Your task to perform on an android device: Open the map Image 0: 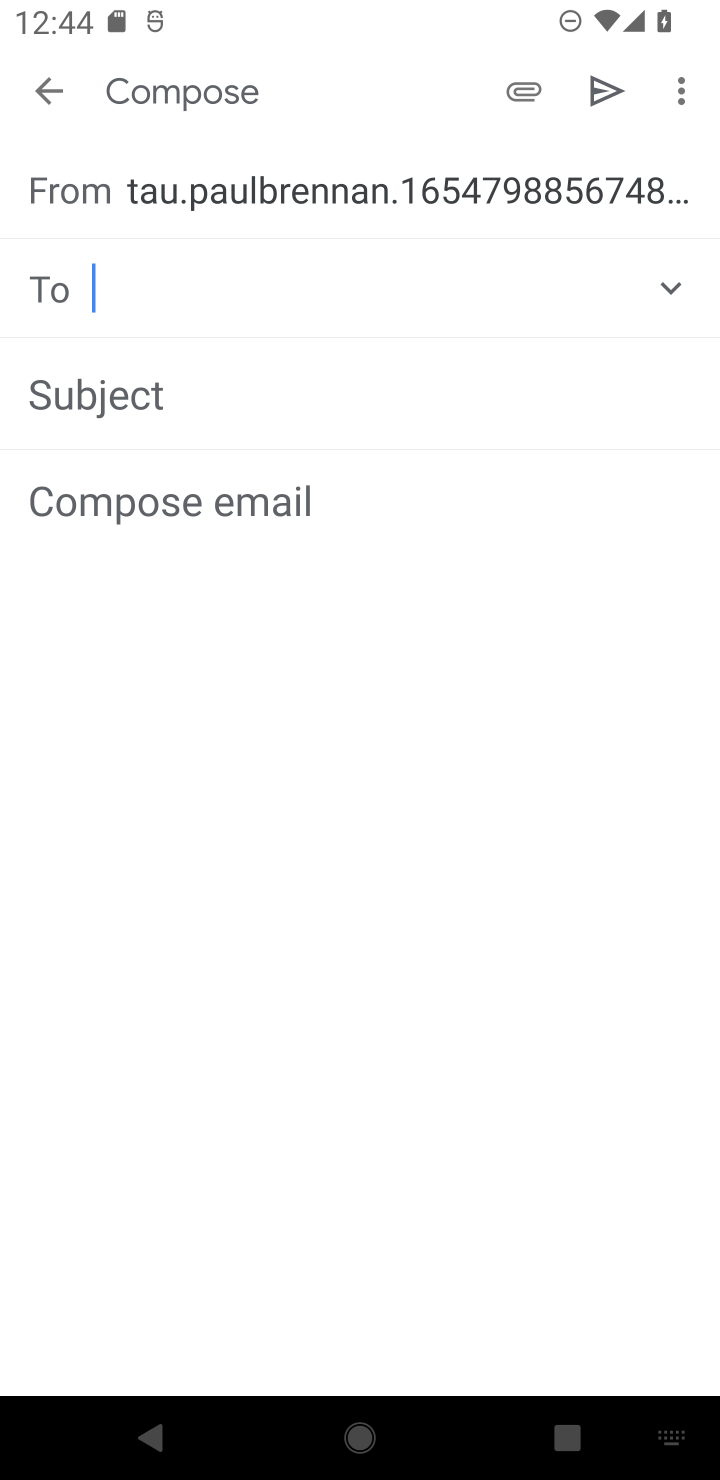
Step 0: press home button
Your task to perform on an android device: Open the map Image 1: 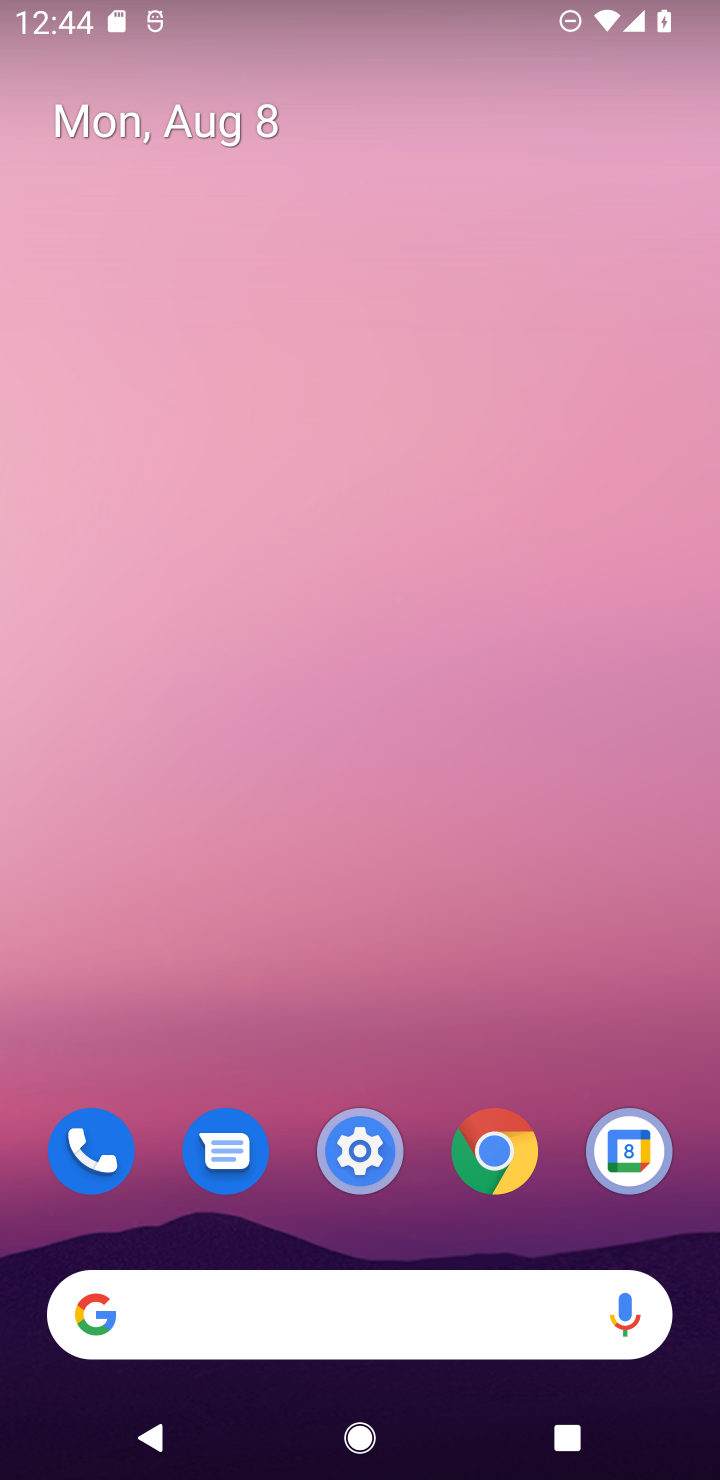
Step 1: drag from (383, 1274) to (224, 190)
Your task to perform on an android device: Open the map Image 2: 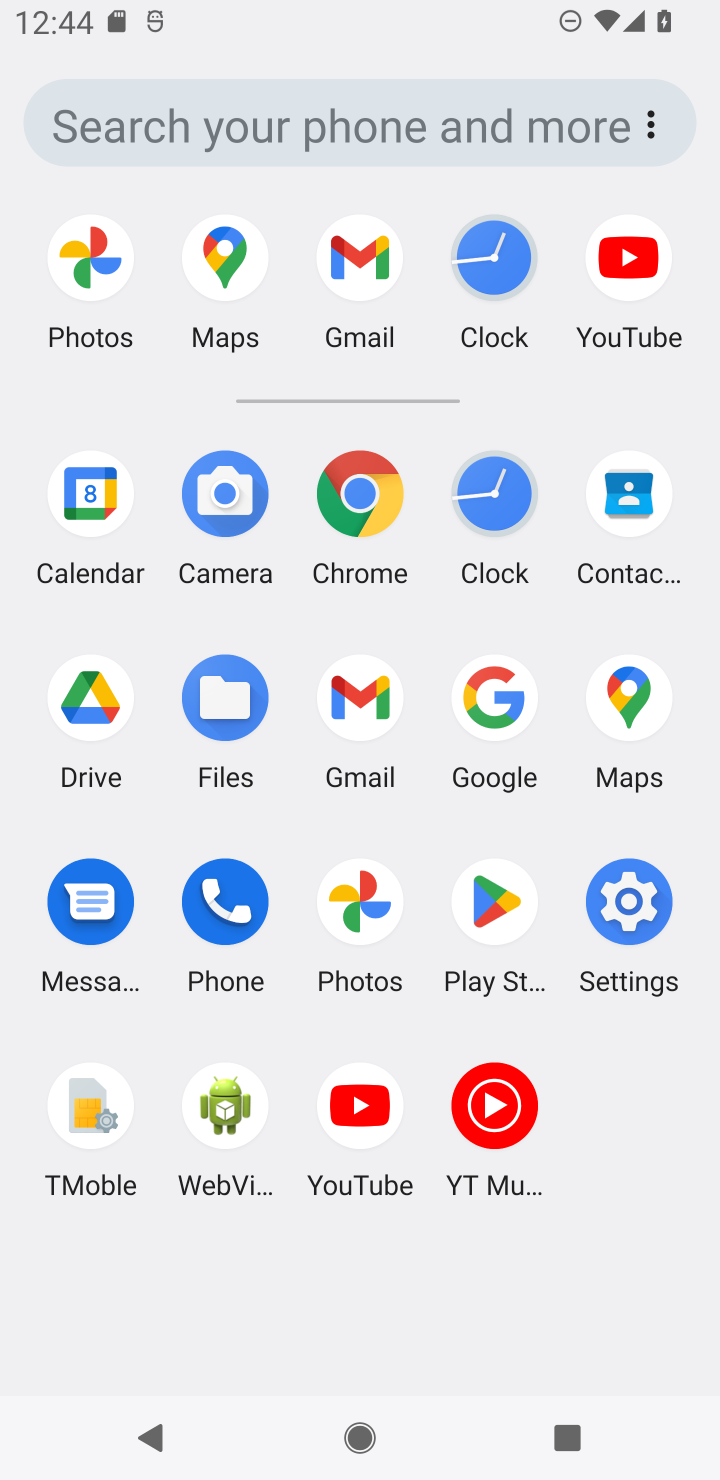
Step 2: click (631, 719)
Your task to perform on an android device: Open the map Image 3: 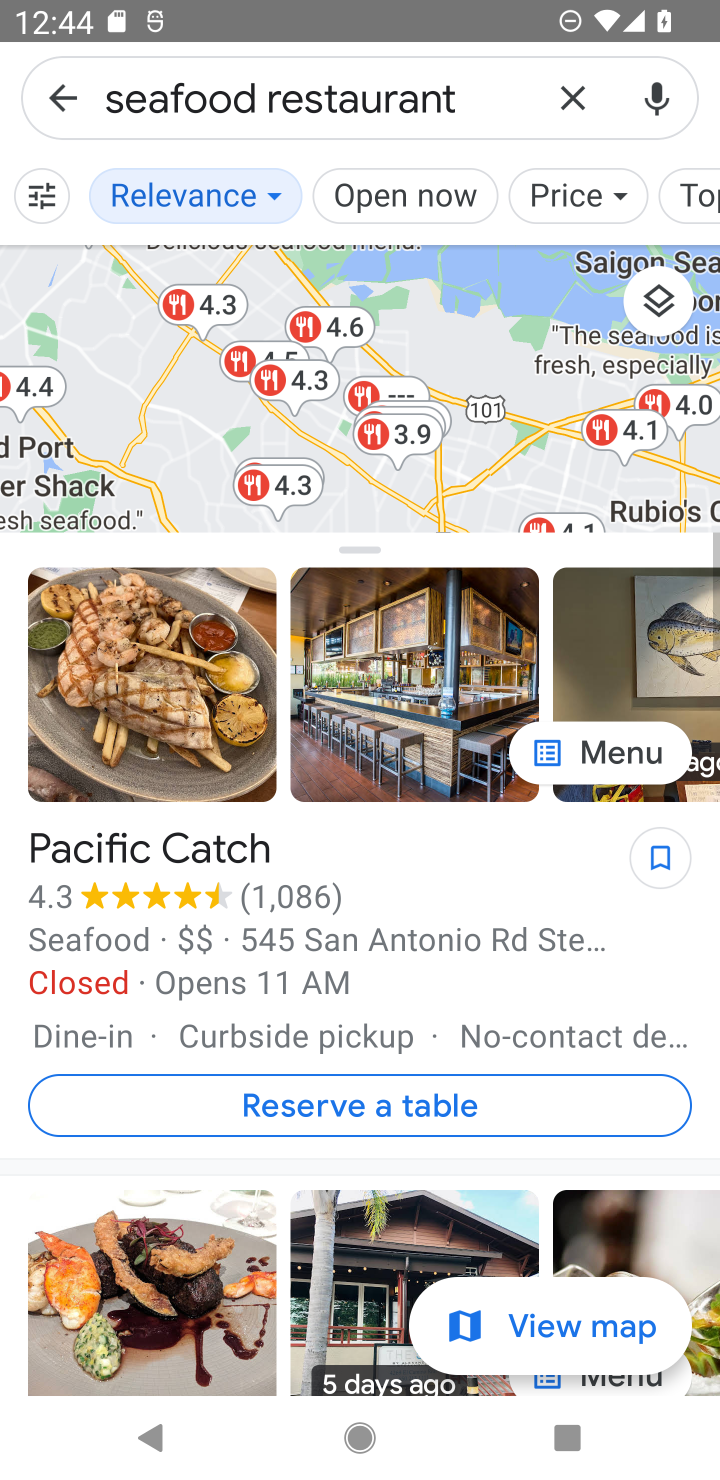
Step 3: click (569, 105)
Your task to perform on an android device: Open the map Image 4: 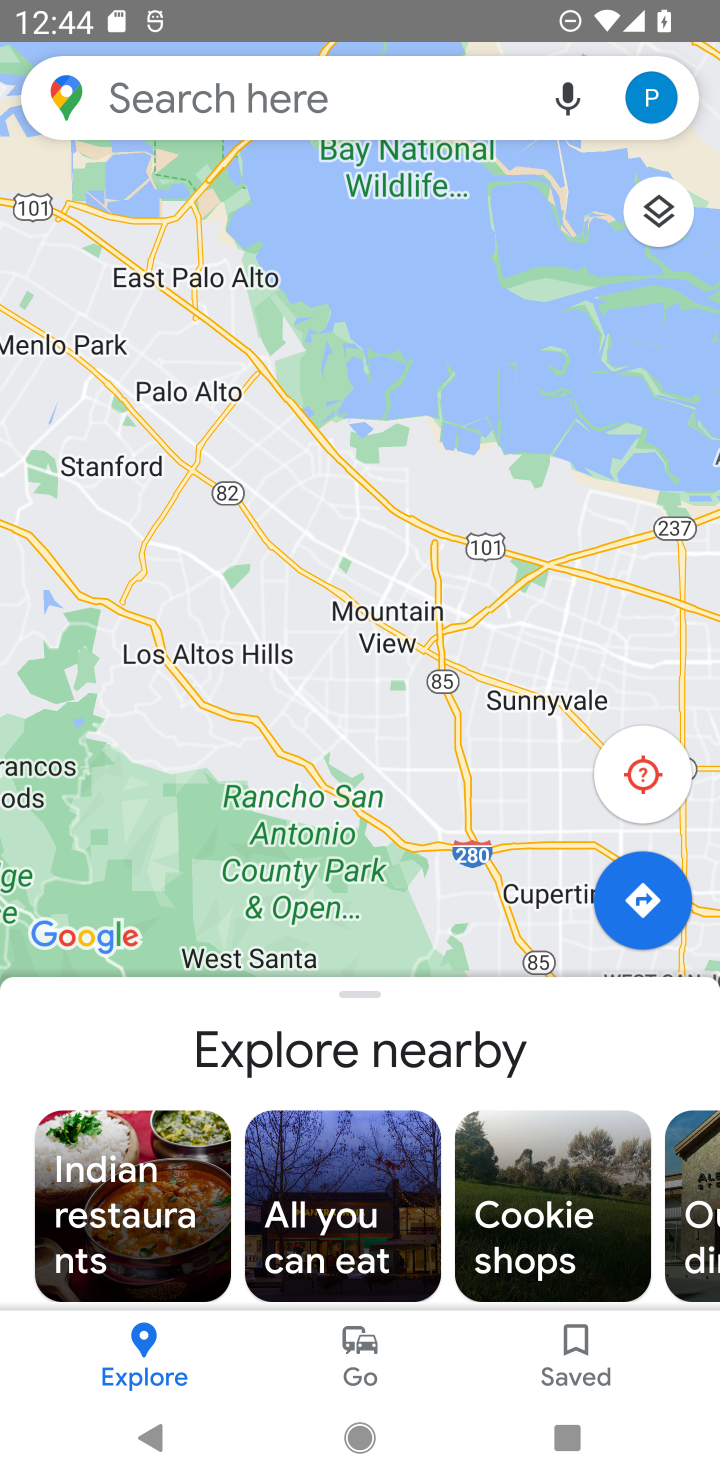
Step 4: task complete